Your task to perform on an android device: What's the weather today? Image 0: 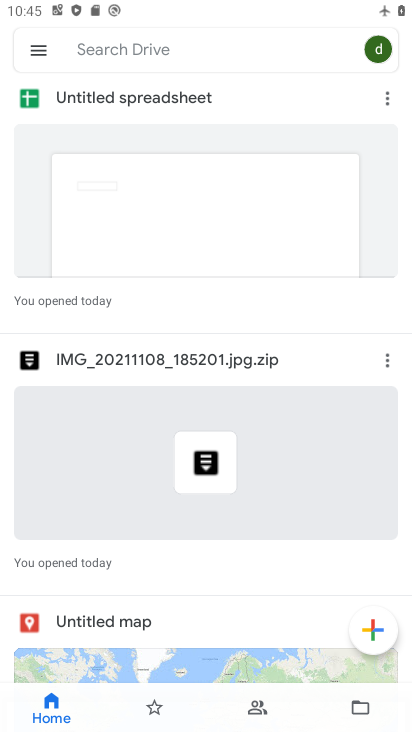
Step 0: press home button
Your task to perform on an android device: What's the weather today? Image 1: 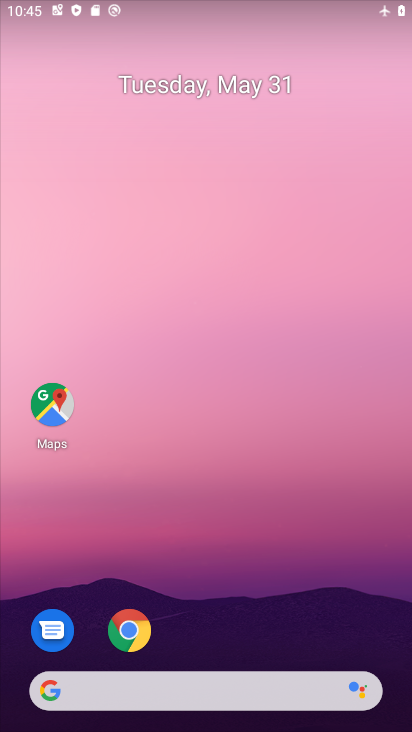
Step 1: drag from (248, 662) to (307, 260)
Your task to perform on an android device: What's the weather today? Image 2: 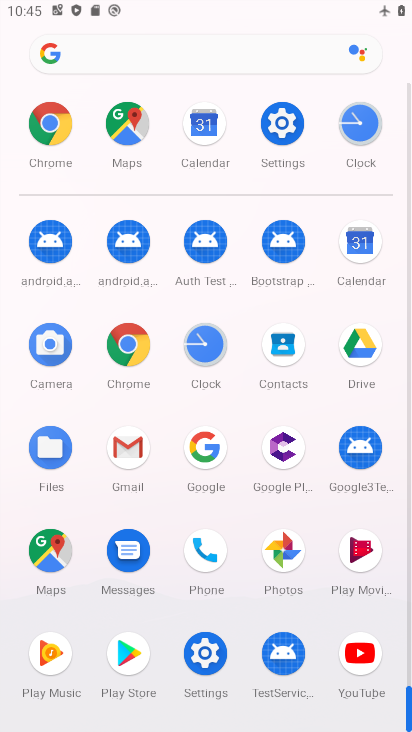
Step 2: click (207, 467)
Your task to perform on an android device: What's the weather today? Image 3: 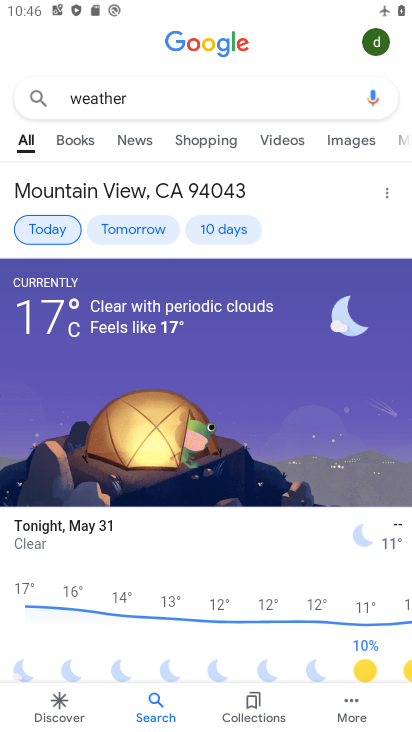
Step 3: task complete